Your task to perform on an android device: make emails show in primary in the gmail app Image 0: 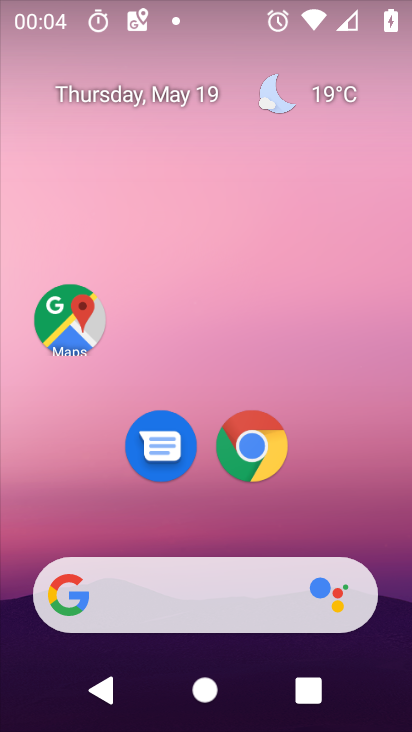
Step 0: press home button
Your task to perform on an android device: make emails show in primary in the gmail app Image 1: 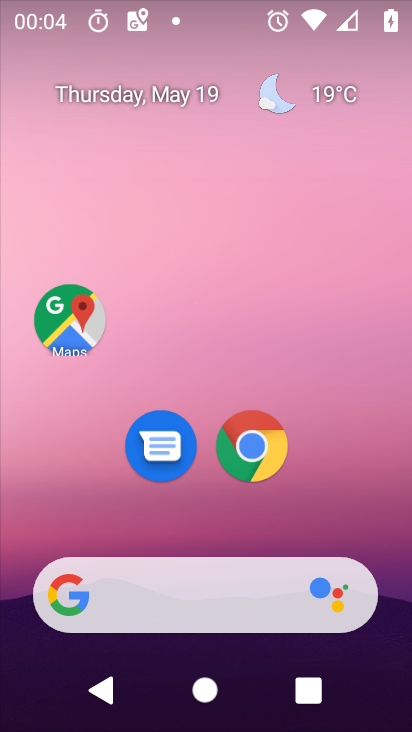
Step 1: drag from (146, 611) to (274, 190)
Your task to perform on an android device: make emails show in primary in the gmail app Image 2: 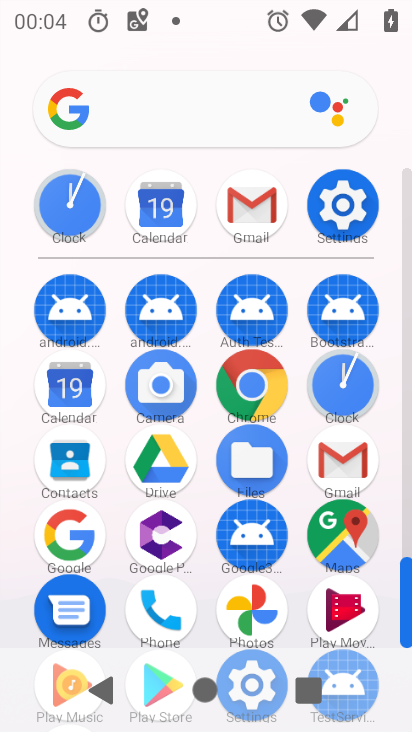
Step 2: click (233, 222)
Your task to perform on an android device: make emails show in primary in the gmail app Image 3: 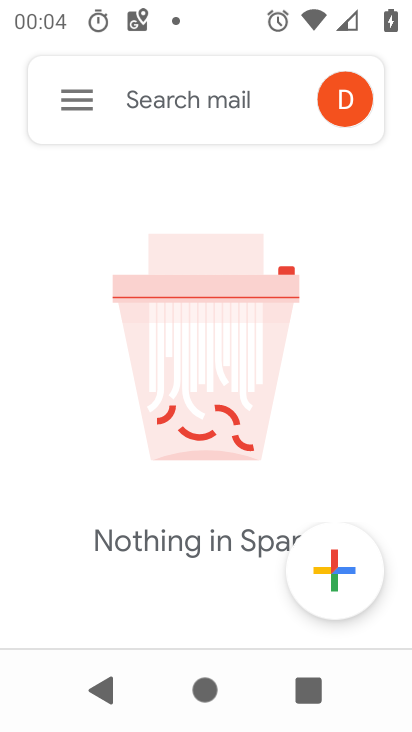
Step 3: click (78, 100)
Your task to perform on an android device: make emails show in primary in the gmail app Image 4: 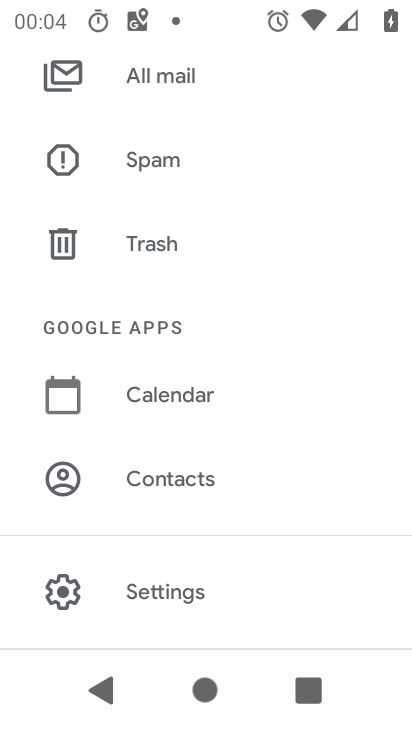
Step 4: click (162, 597)
Your task to perform on an android device: make emails show in primary in the gmail app Image 5: 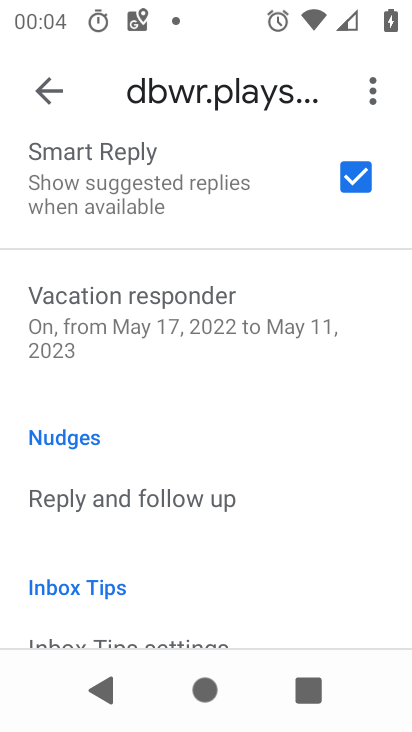
Step 5: drag from (166, 604) to (205, 651)
Your task to perform on an android device: make emails show in primary in the gmail app Image 6: 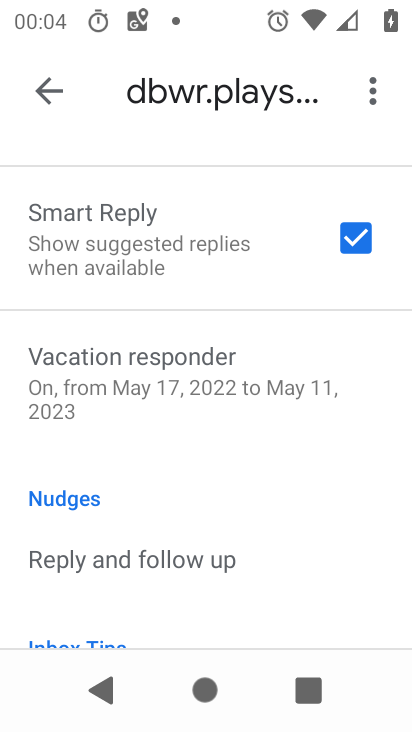
Step 6: drag from (245, 225) to (179, 633)
Your task to perform on an android device: make emails show in primary in the gmail app Image 7: 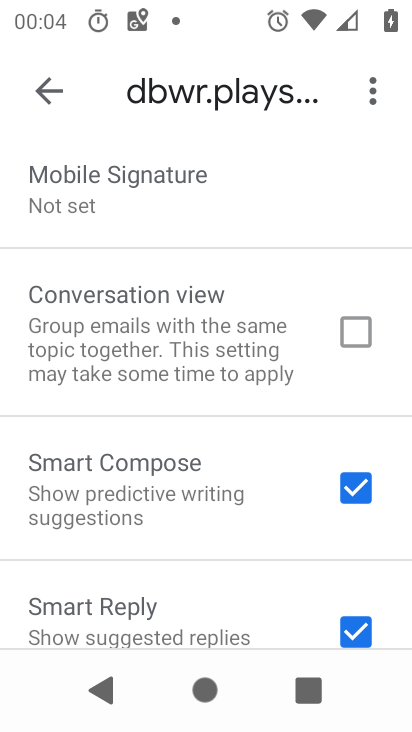
Step 7: drag from (279, 223) to (203, 632)
Your task to perform on an android device: make emails show in primary in the gmail app Image 8: 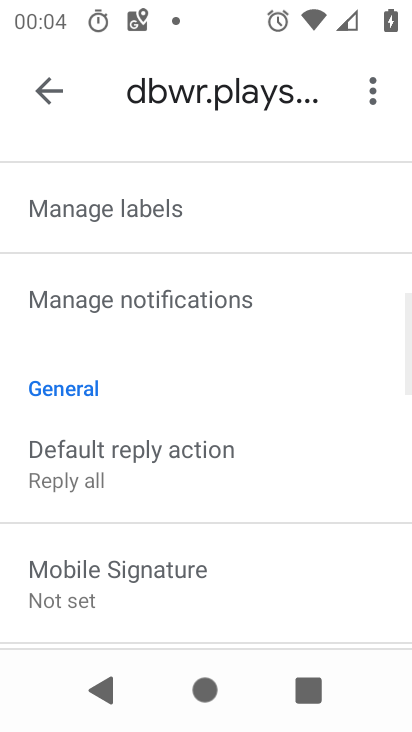
Step 8: drag from (277, 297) to (204, 663)
Your task to perform on an android device: make emails show in primary in the gmail app Image 9: 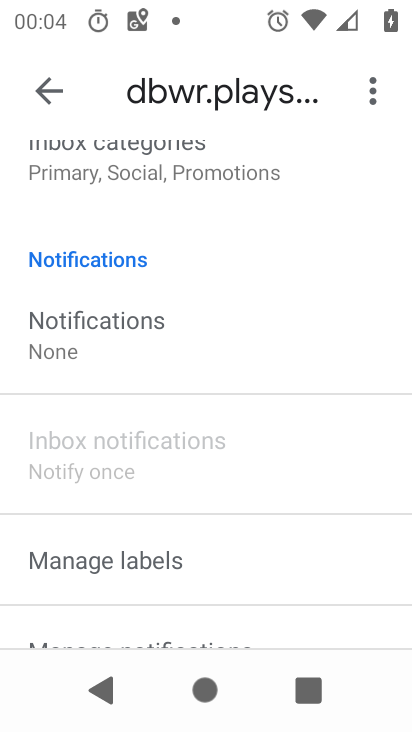
Step 9: drag from (277, 241) to (216, 535)
Your task to perform on an android device: make emails show in primary in the gmail app Image 10: 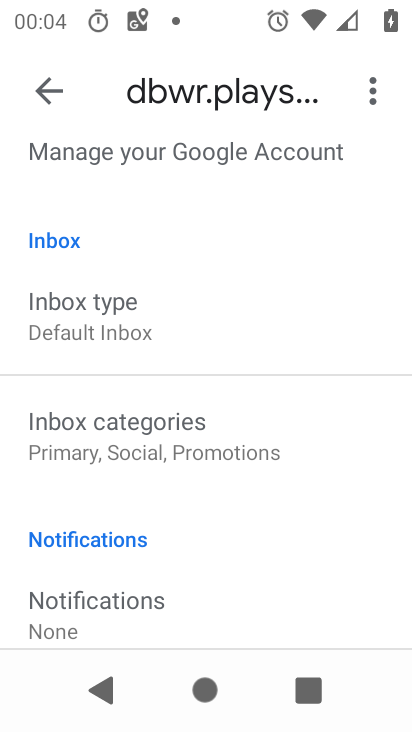
Step 10: click (162, 432)
Your task to perform on an android device: make emails show in primary in the gmail app Image 11: 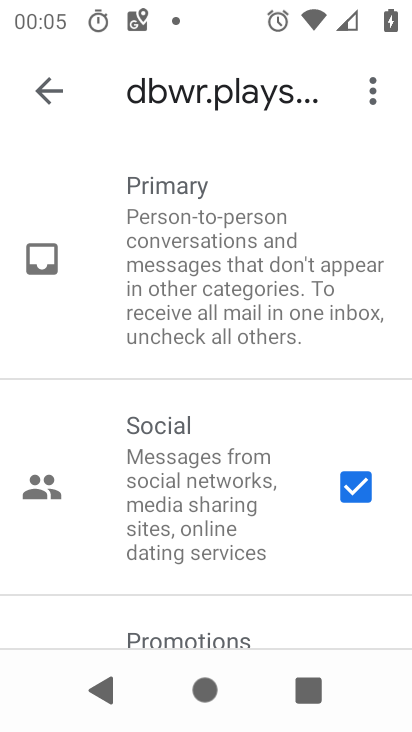
Step 11: drag from (236, 548) to (269, 448)
Your task to perform on an android device: make emails show in primary in the gmail app Image 12: 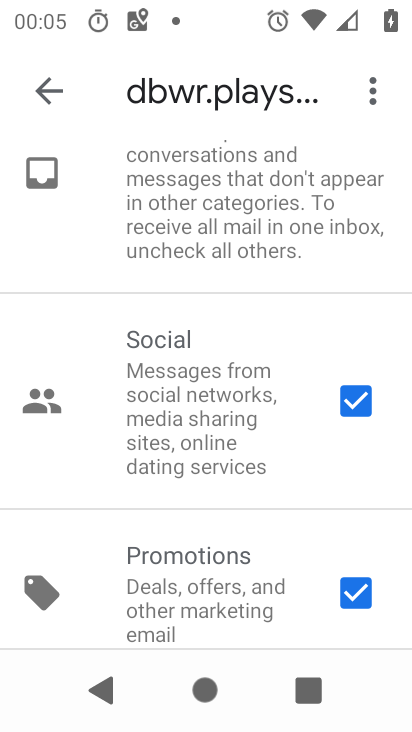
Step 12: click (360, 386)
Your task to perform on an android device: make emails show in primary in the gmail app Image 13: 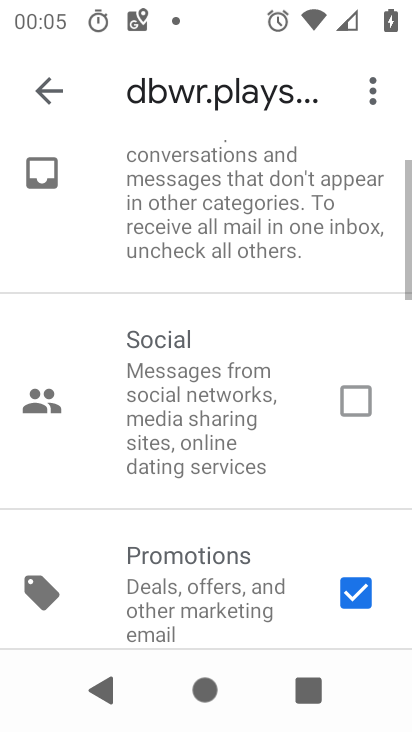
Step 13: click (353, 601)
Your task to perform on an android device: make emails show in primary in the gmail app Image 14: 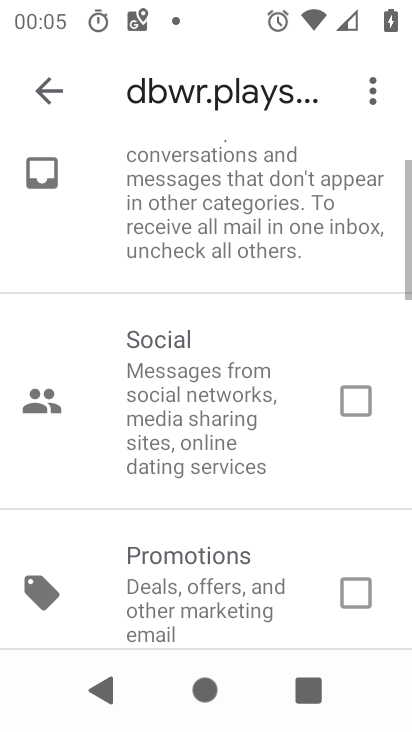
Step 14: drag from (231, 566) to (351, 245)
Your task to perform on an android device: make emails show in primary in the gmail app Image 15: 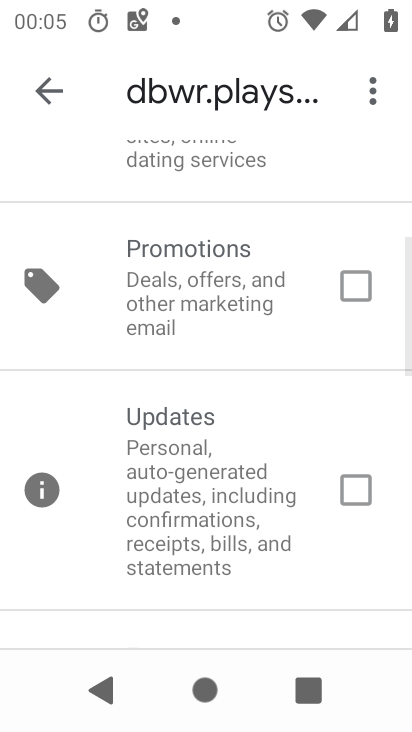
Step 15: drag from (267, 243) to (245, 584)
Your task to perform on an android device: make emails show in primary in the gmail app Image 16: 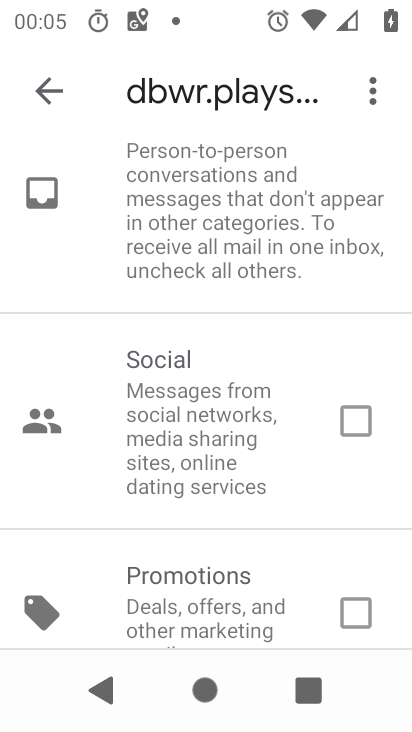
Step 16: drag from (260, 239) to (230, 565)
Your task to perform on an android device: make emails show in primary in the gmail app Image 17: 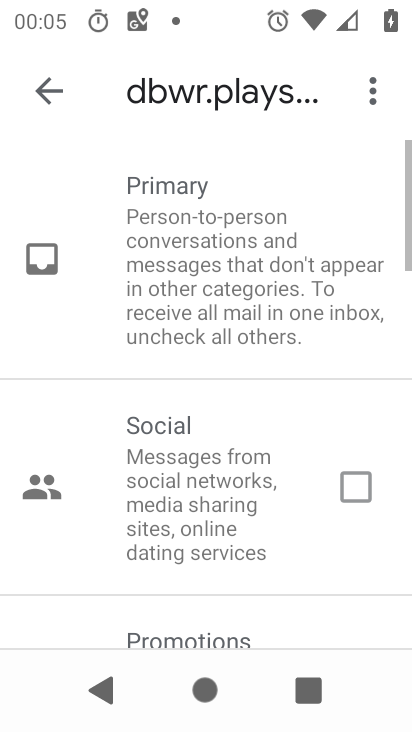
Step 17: click (48, 86)
Your task to perform on an android device: make emails show in primary in the gmail app Image 18: 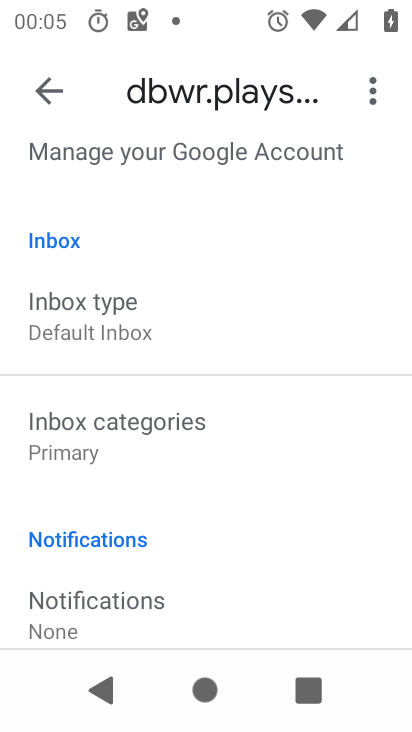
Step 18: task complete